Your task to perform on an android device: create a new album in the google photos Image 0: 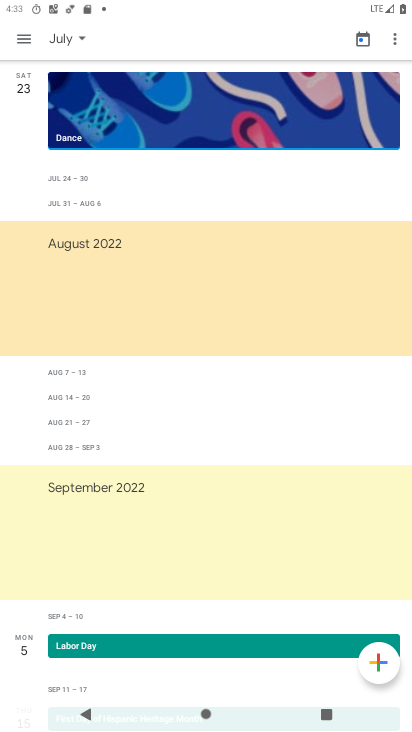
Step 0: press home button
Your task to perform on an android device: create a new album in the google photos Image 1: 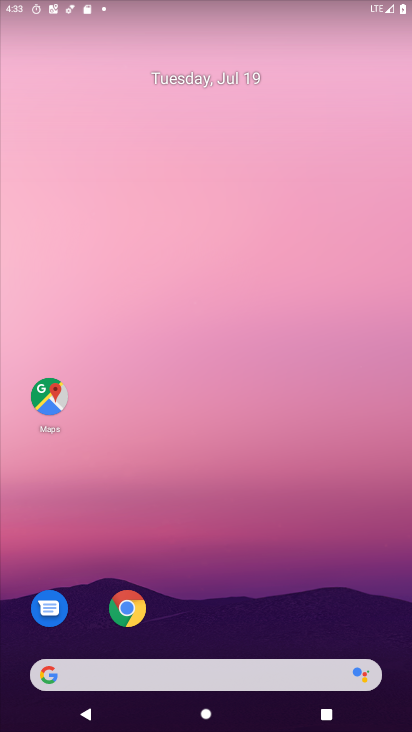
Step 1: drag from (199, 677) to (196, 156)
Your task to perform on an android device: create a new album in the google photos Image 2: 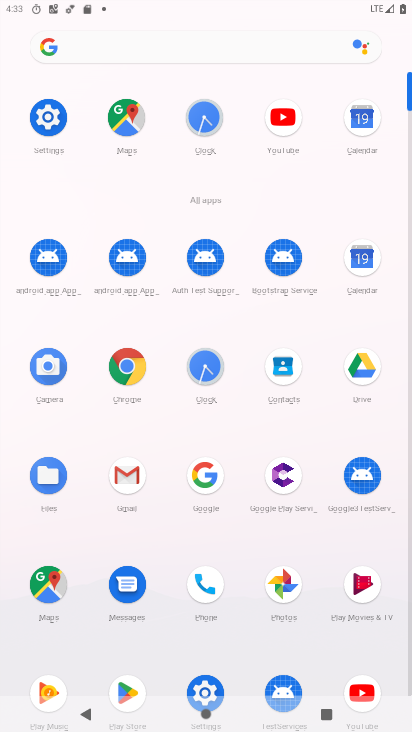
Step 2: click (283, 584)
Your task to perform on an android device: create a new album in the google photos Image 3: 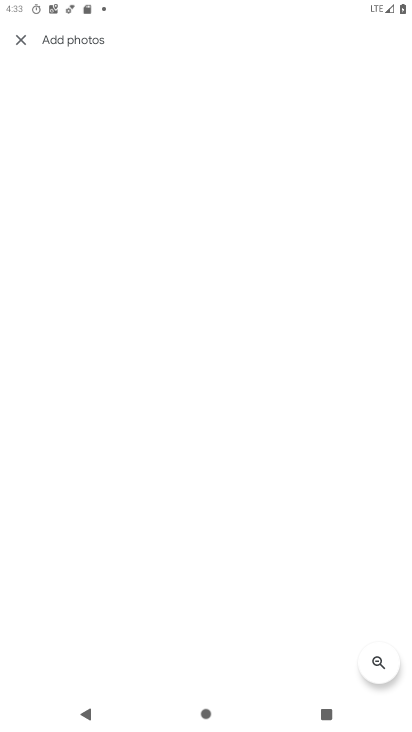
Step 3: press back button
Your task to perform on an android device: create a new album in the google photos Image 4: 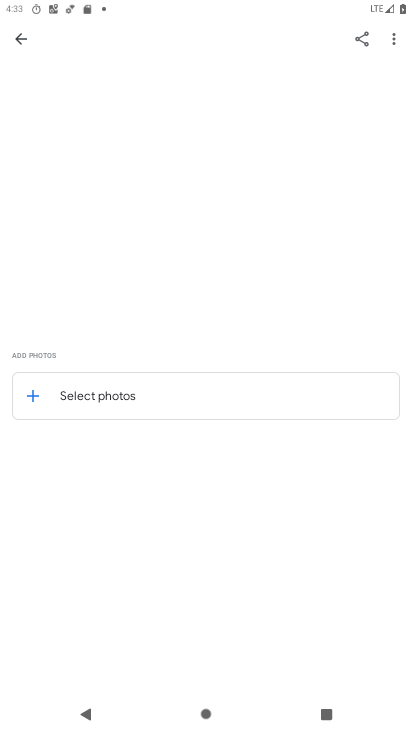
Step 4: click (32, 392)
Your task to perform on an android device: create a new album in the google photos Image 5: 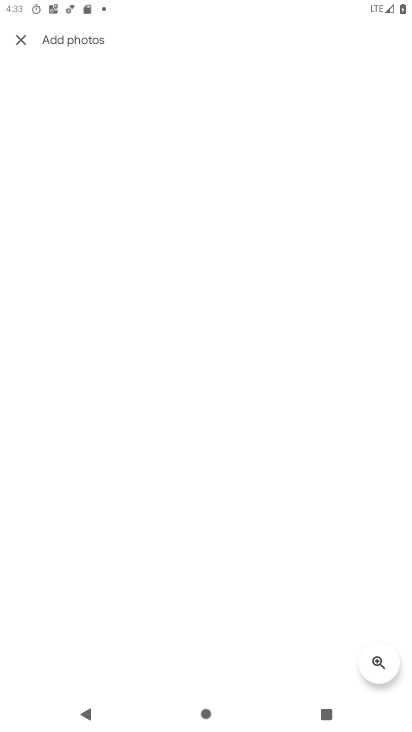
Step 5: press back button
Your task to perform on an android device: create a new album in the google photos Image 6: 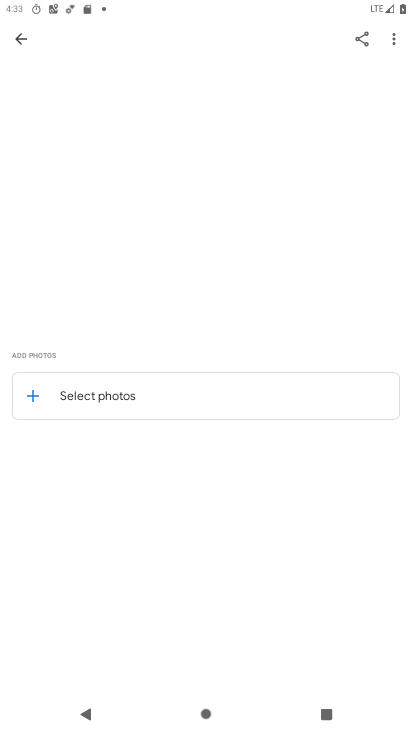
Step 6: press back button
Your task to perform on an android device: create a new album in the google photos Image 7: 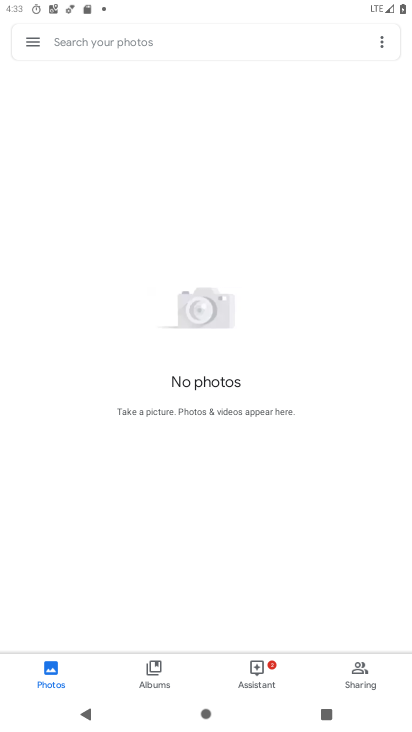
Step 7: click (378, 43)
Your task to perform on an android device: create a new album in the google photos Image 8: 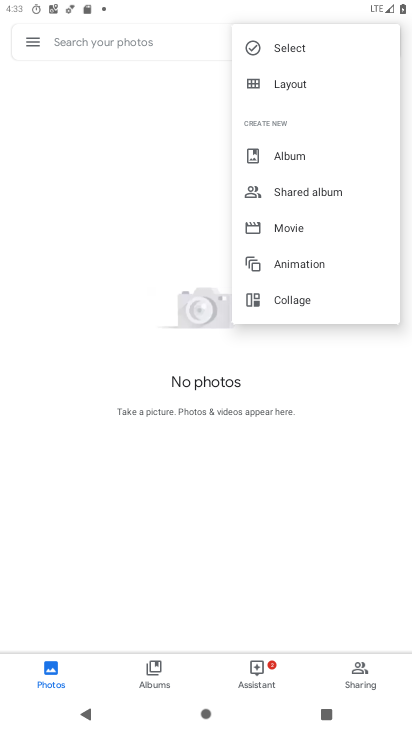
Step 8: click (297, 151)
Your task to perform on an android device: create a new album in the google photos Image 9: 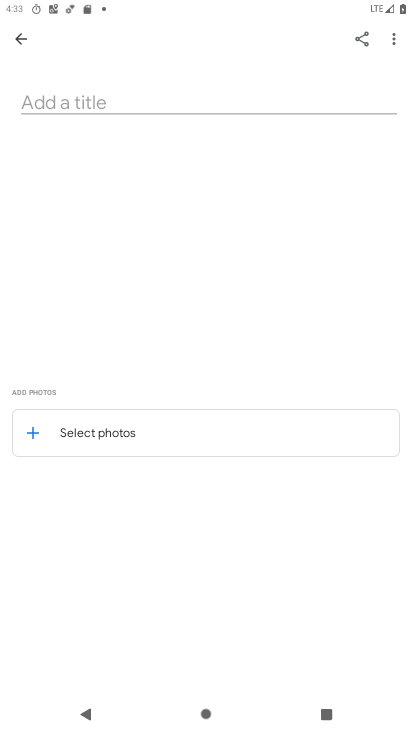
Step 9: click (271, 109)
Your task to perform on an android device: create a new album in the google photos Image 10: 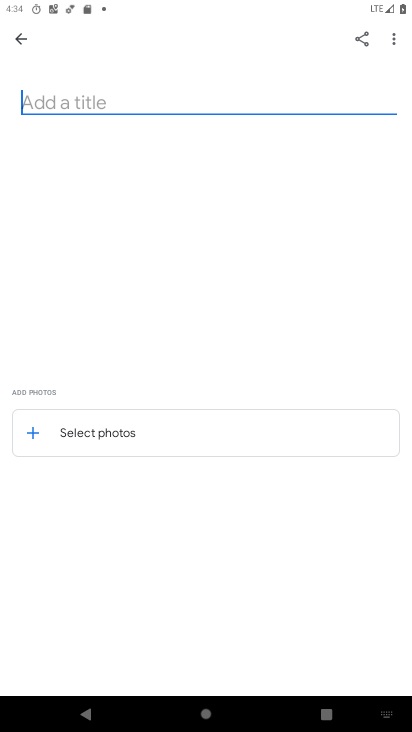
Step 10: type "KL"
Your task to perform on an android device: create a new album in the google photos Image 11: 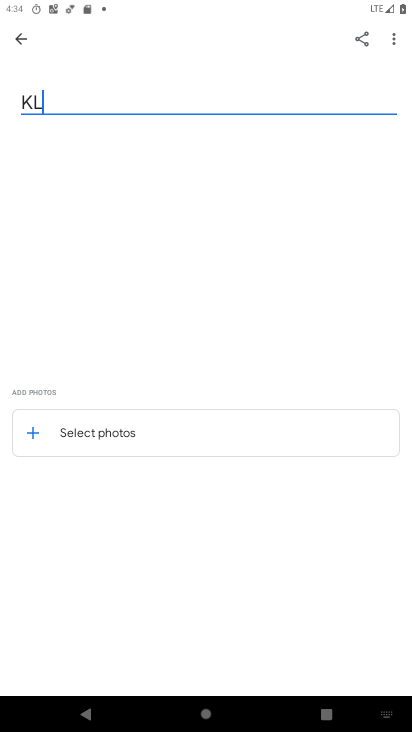
Step 11: click (29, 437)
Your task to perform on an android device: create a new album in the google photos Image 12: 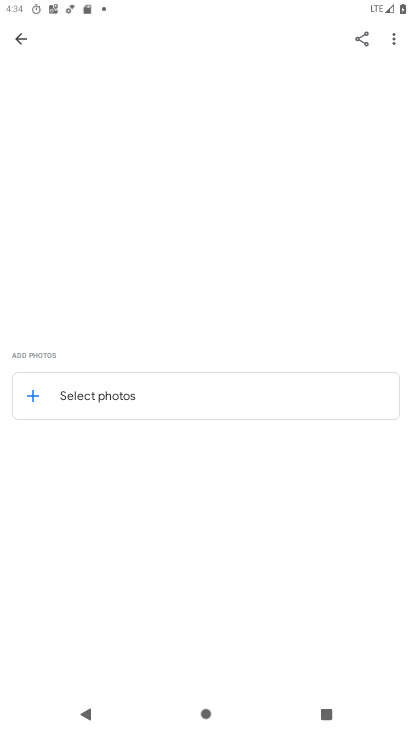
Step 12: click (32, 391)
Your task to perform on an android device: create a new album in the google photos Image 13: 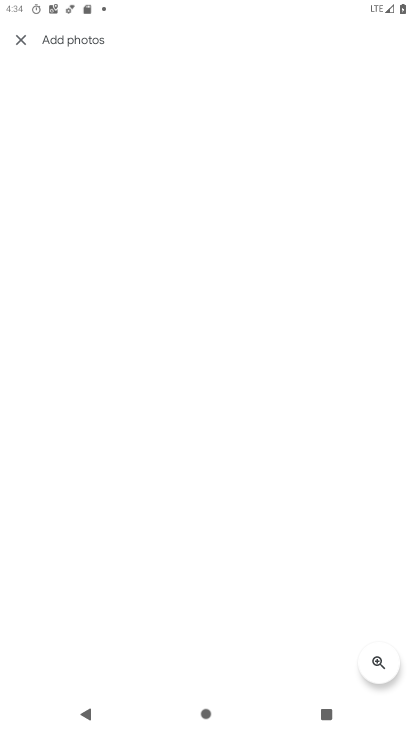
Step 13: task complete